Your task to perform on an android device: Turn on the flashlight Image 0: 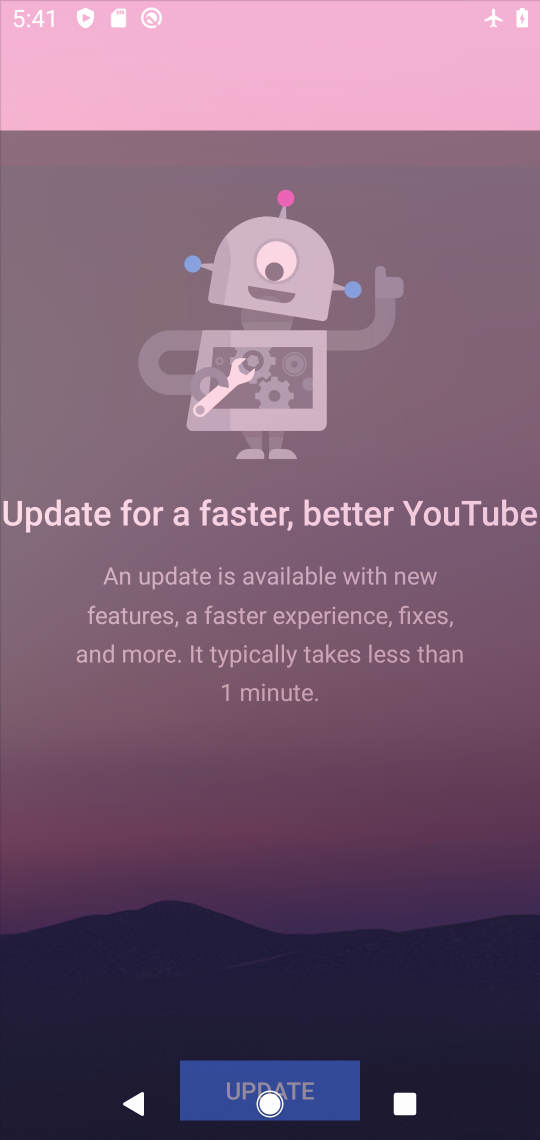
Step 0: click (335, 171)
Your task to perform on an android device: Turn on the flashlight Image 1: 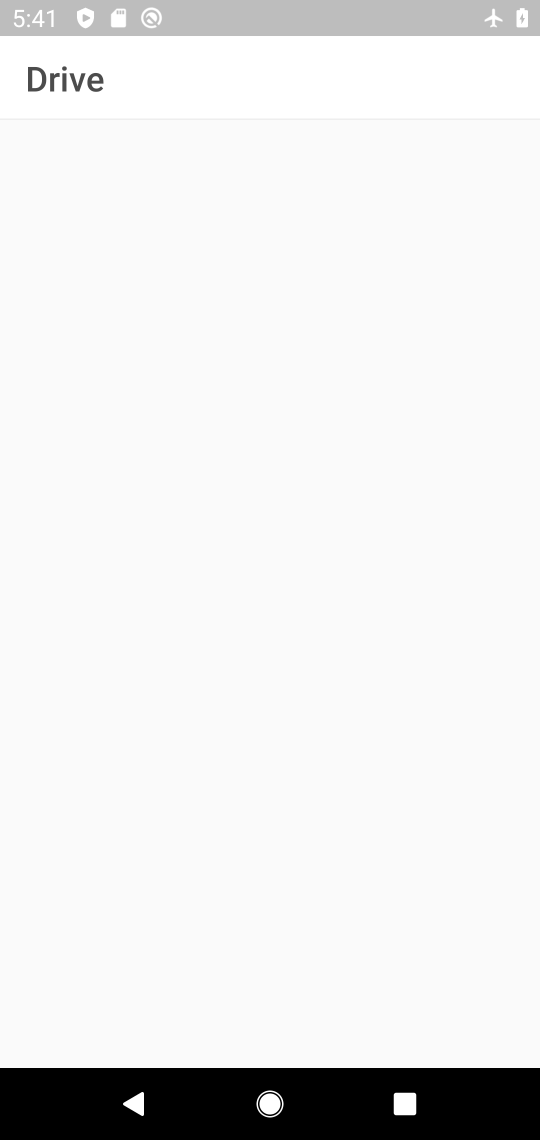
Step 1: task complete